Your task to perform on an android device: change text size in settings app Image 0: 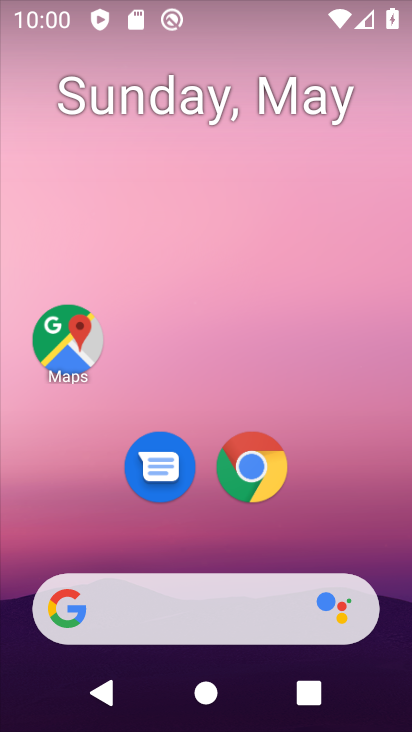
Step 0: drag from (238, 525) to (259, 151)
Your task to perform on an android device: change text size in settings app Image 1: 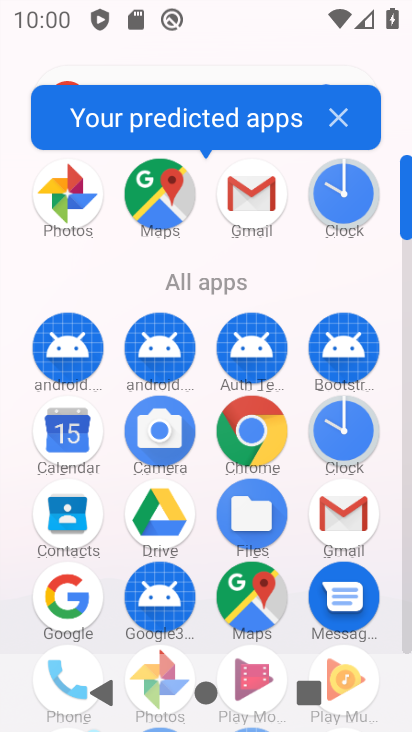
Step 1: drag from (206, 574) to (208, 193)
Your task to perform on an android device: change text size in settings app Image 2: 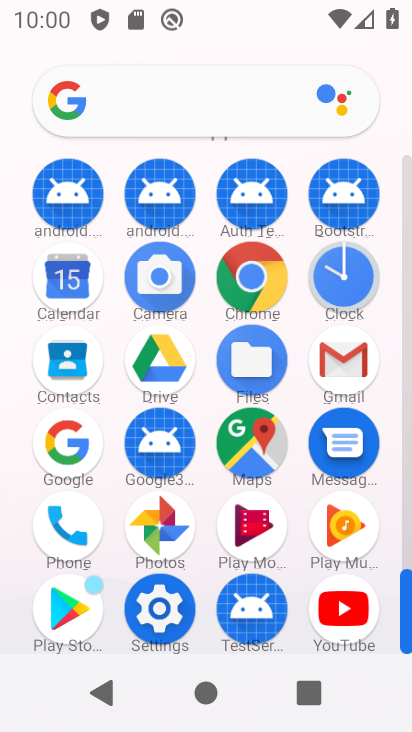
Step 2: click (162, 610)
Your task to perform on an android device: change text size in settings app Image 3: 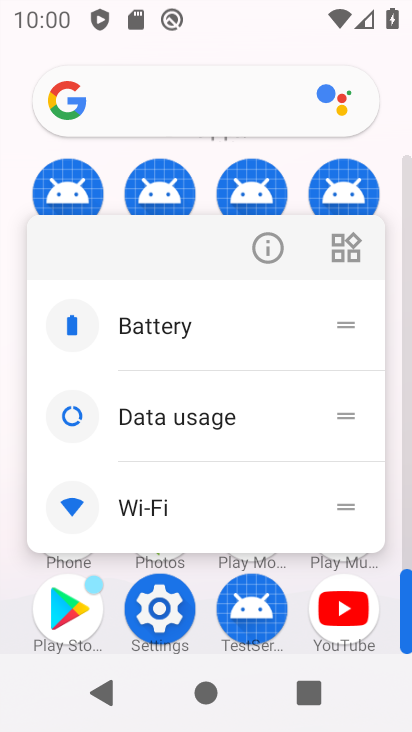
Step 3: click (279, 252)
Your task to perform on an android device: change text size in settings app Image 4: 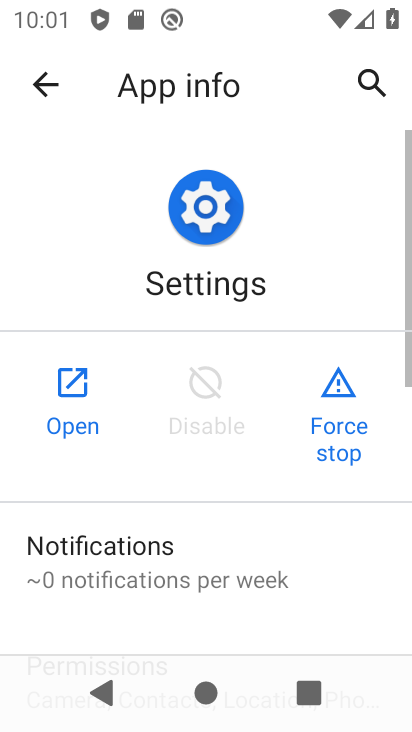
Step 4: click (78, 398)
Your task to perform on an android device: change text size in settings app Image 5: 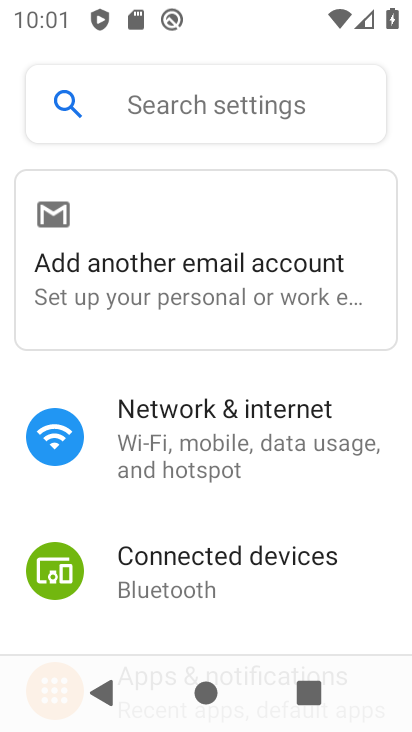
Step 5: drag from (208, 502) to (339, 2)
Your task to perform on an android device: change text size in settings app Image 6: 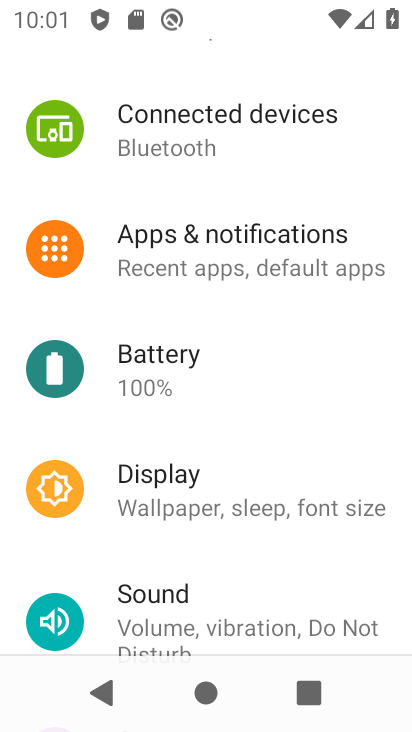
Step 6: click (175, 500)
Your task to perform on an android device: change text size in settings app Image 7: 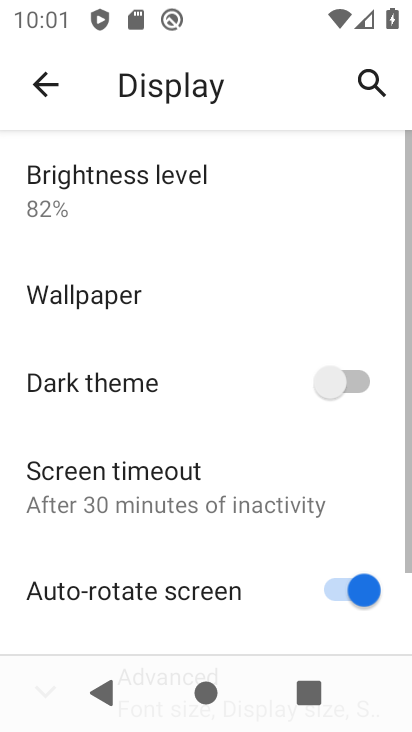
Step 7: drag from (174, 498) to (295, 26)
Your task to perform on an android device: change text size in settings app Image 8: 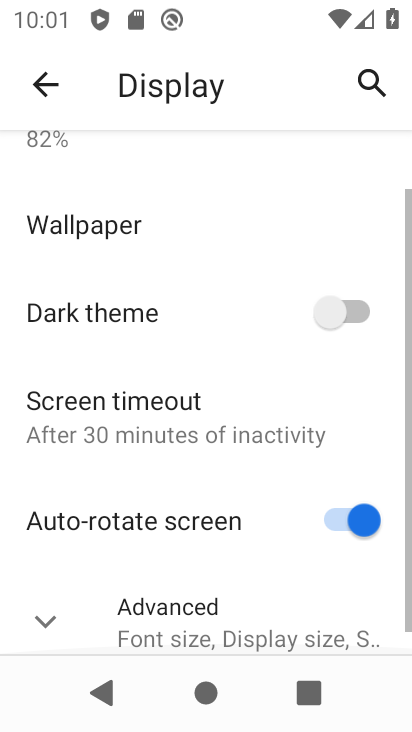
Step 8: click (201, 639)
Your task to perform on an android device: change text size in settings app Image 9: 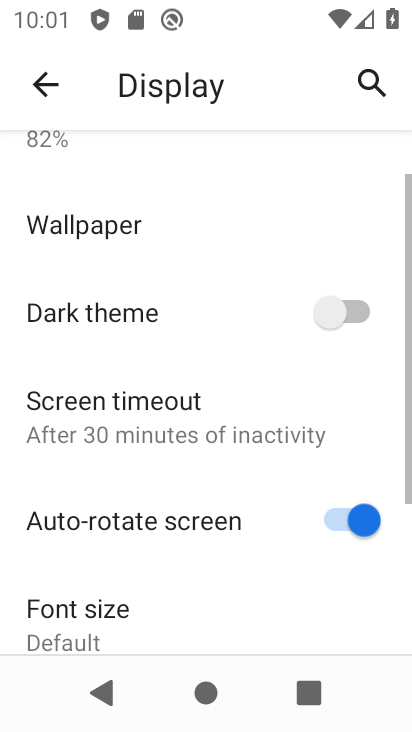
Step 9: drag from (192, 629) to (291, 82)
Your task to perform on an android device: change text size in settings app Image 10: 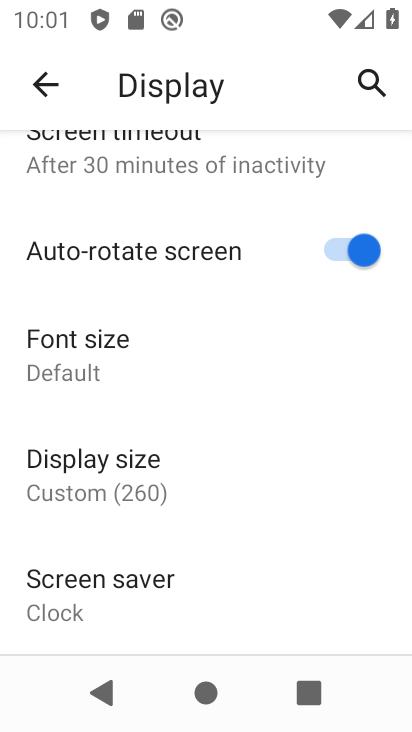
Step 10: click (90, 352)
Your task to perform on an android device: change text size in settings app Image 11: 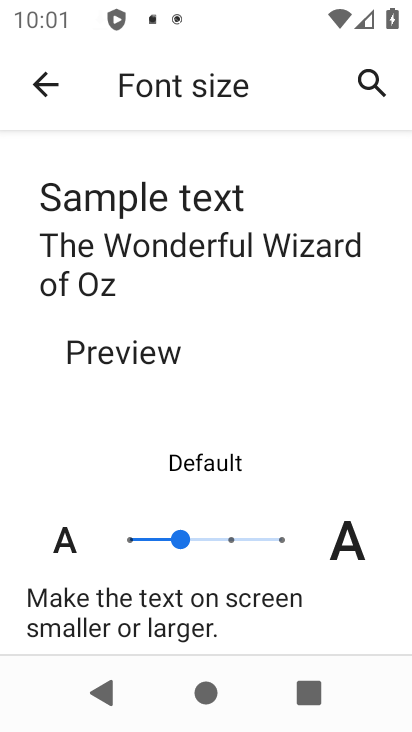
Step 11: click (148, 538)
Your task to perform on an android device: change text size in settings app Image 12: 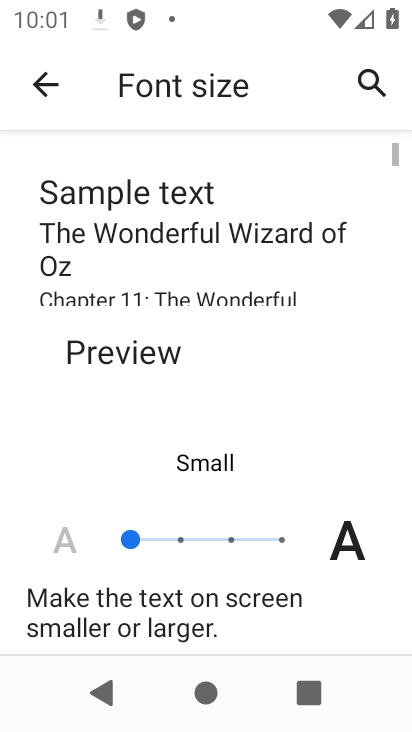
Step 12: task complete